Your task to perform on an android device: turn on the 24-hour format for clock Image 0: 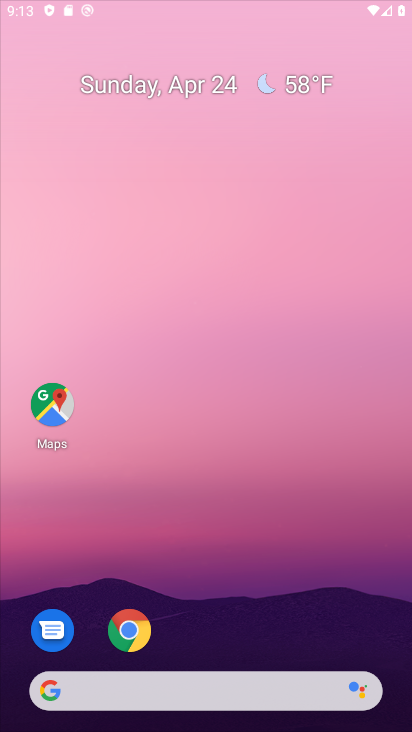
Step 0: drag from (278, 33) to (155, 7)
Your task to perform on an android device: turn on the 24-hour format for clock Image 1: 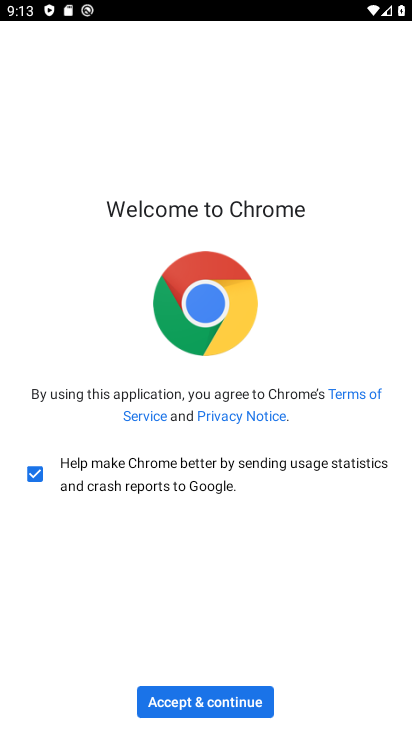
Step 1: press home button
Your task to perform on an android device: turn on the 24-hour format for clock Image 2: 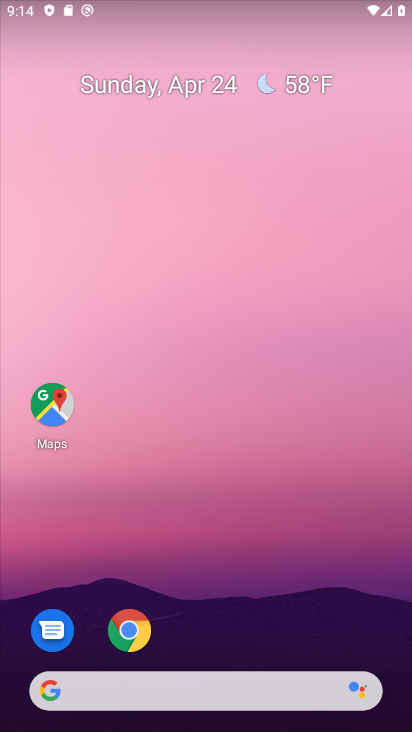
Step 2: drag from (284, 578) to (345, 50)
Your task to perform on an android device: turn on the 24-hour format for clock Image 3: 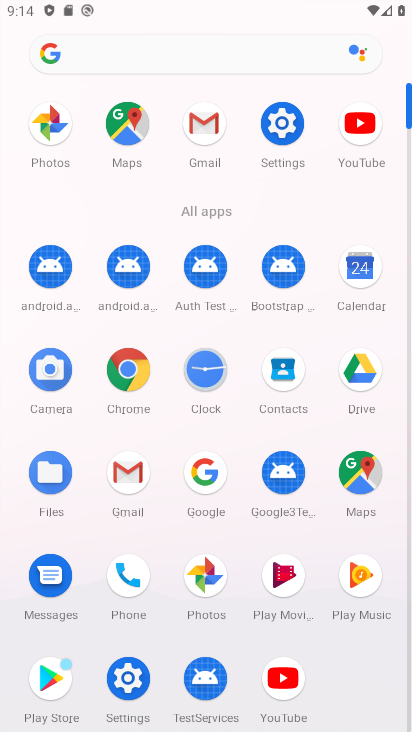
Step 3: click (207, 404)
Your task to perform on an android device: turn on the 24-hour format for clock Image 4: 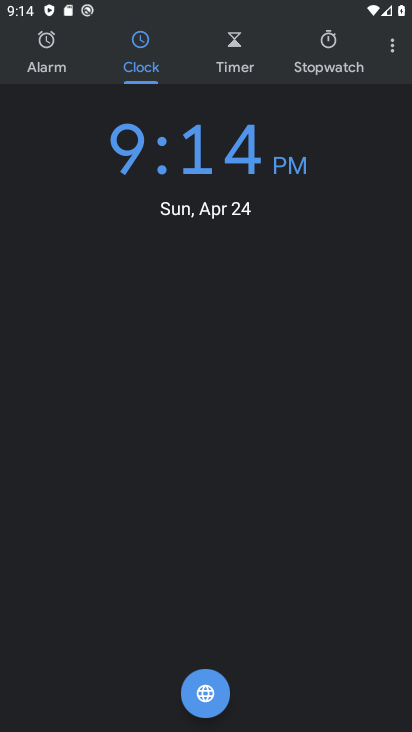
Step 4: click (385, 49)
Your task to perform on an android device: turn on the 24-hour format for clock Image 5: 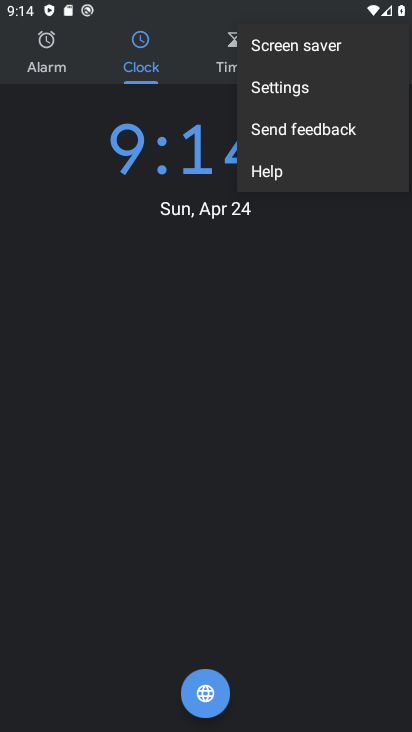
Step 5: click (327, 96)
Your task to perform on an android device: turn on the 24-hour format for clock Image 6: 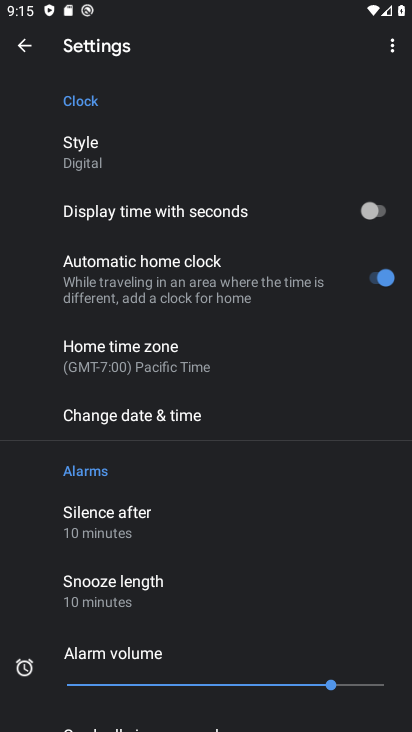
Step 6: click (195, 413)
Your task to perform on an android device: turn on the 24-hour format for clock Image 7: 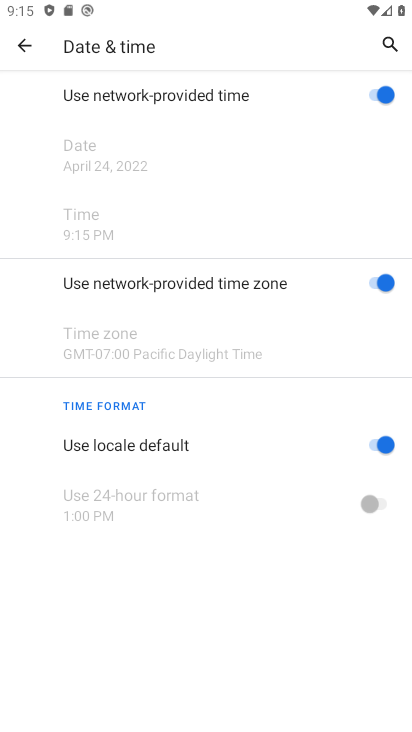
Step 7: task complete